Your task to perform on an android device: add a contact Image 0: 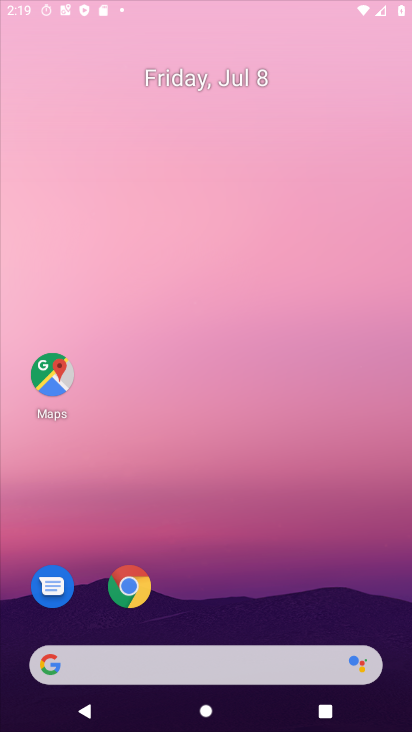
Step 0: press home button
Your task to perform on an android device: add a contact Image 1: 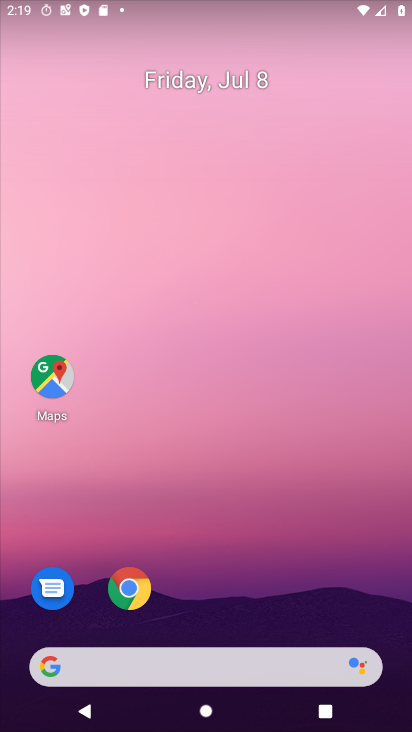
Step 1: drag from (283, 578) to (256, 96)
Your task to perform on an android device: add a contact Image 2: 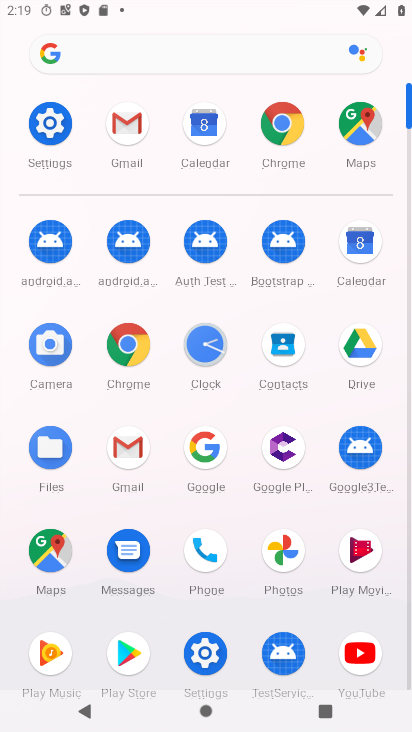
Step 2: click (280, 336)
Your task to perform on an android device: add a contact Image 3: 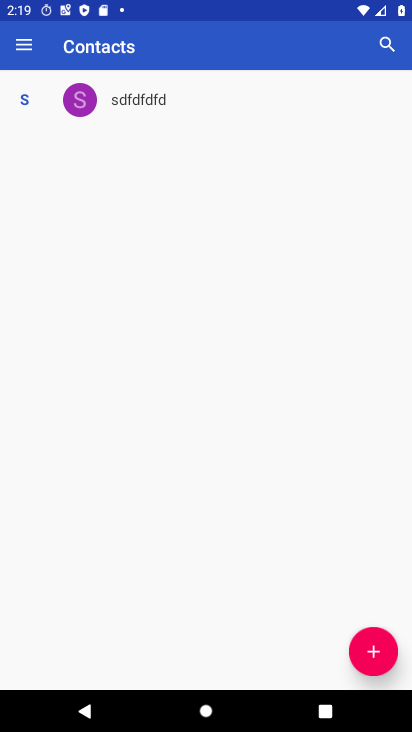
Step 3: click (373, 650)
Your task to perform on an android device: add a contact Image 4: 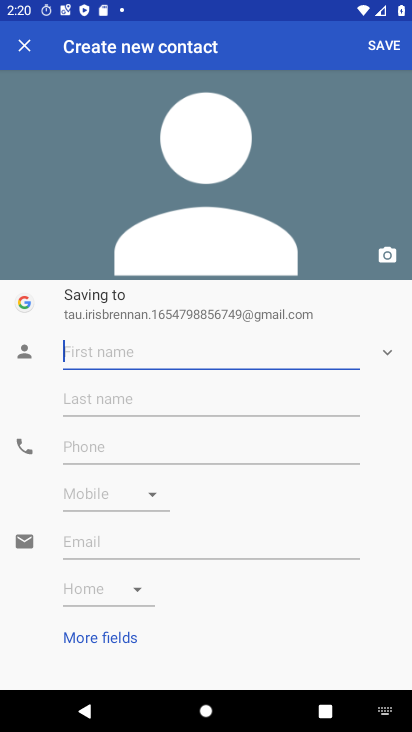
Step 4: type "cvcvcv"
Your task to perform on an android device: add a contact Image 5: 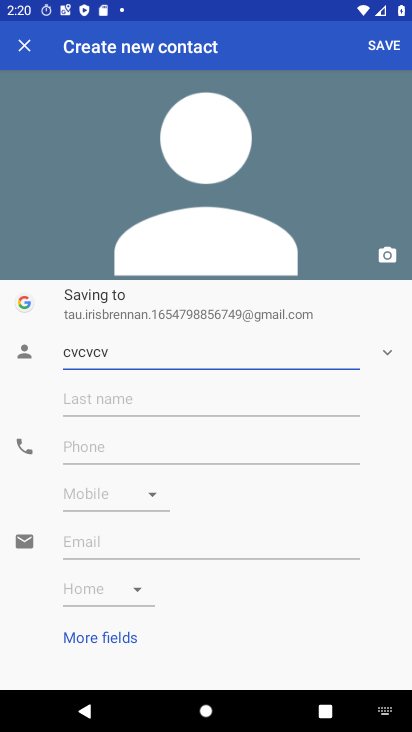
Step 5: click (177, 440)
Your task to perform on an android device: add a contact Image 6: 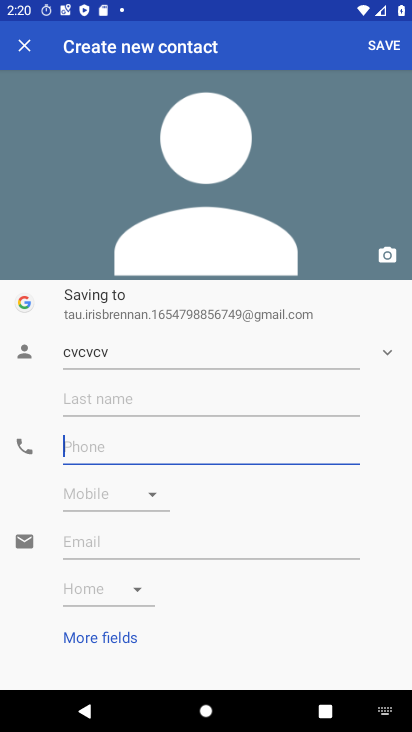
Step 6: type "656565"
Your task to perform on an android device: add a contact Image 7: 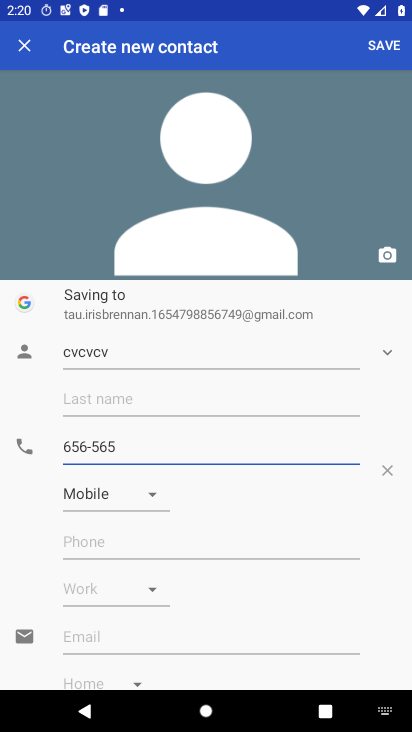
Step 7: click (389, 40)
Your task to perform on an android device: add a contact Image 8: 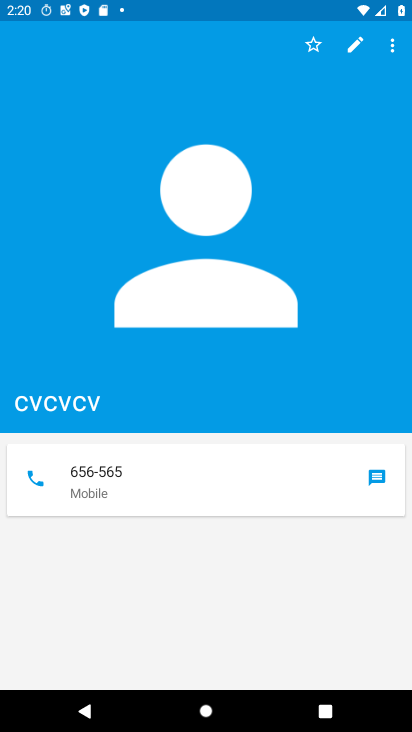
Step 8: task complete